Your task to perform on an android device: Empty the shopping cart on target.com. Add "bose quietcomfort 35" to the cart on target.com, then select checkout. Image 0: 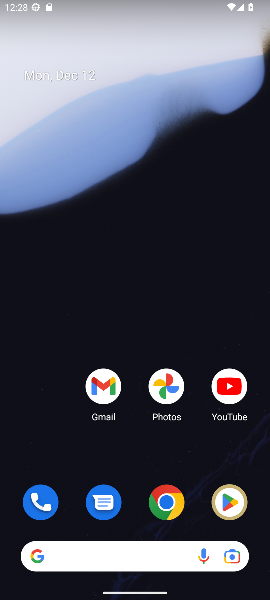
Step 0: click (168, 500)
Your task to perform on an android device: Empty the shopping cart on target.com. Add "bose quietcomfort 35" to the cart on target.com, then select checkout. Image 1: 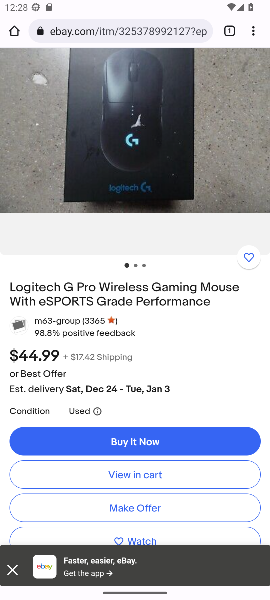
Step 1: click (140, 38)
Your task to perform on an android device: Empty the shopping cart on target.com. Add "bose quietcomfort 35" to the cart on target.com, then select checkout. Image 2: 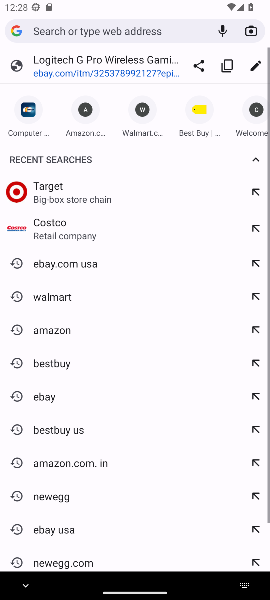
Step 2: click (91, 182)
Your task to perform on an android device: Empty the shopping cart on target.com. Add "bose quietcomfort 35" to the cart on target.com, then select checkout. Image 3: 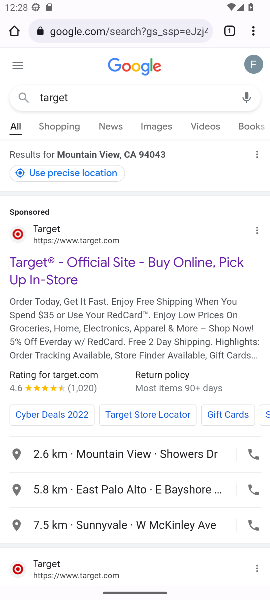
Step 3: click (104, 96)
Your task to perform on an android device: Empty the shopping cart on target.com. Add "bose quietcomfort 35" to the cart on target.com, then select checkout. Image 4: 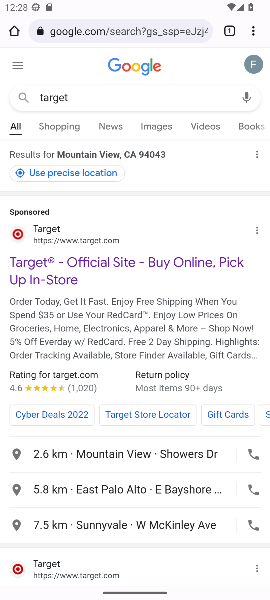
Step 4: click (104, 96)
Your task to perform on an android device: Empty the shopping cart on target.com. Add "bose quietcomfort 35" to the cart on target.com, then select checkout. Image 5: 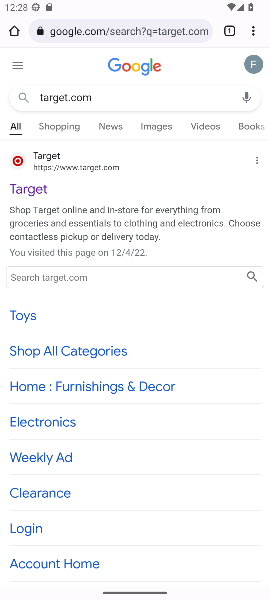
Step 5: press back button
Your task to perform on an android device: Empty the shopping cart on target.com. Add "bose quietcomfort 35" to the cart on target.com, then select checkout. Image 6: 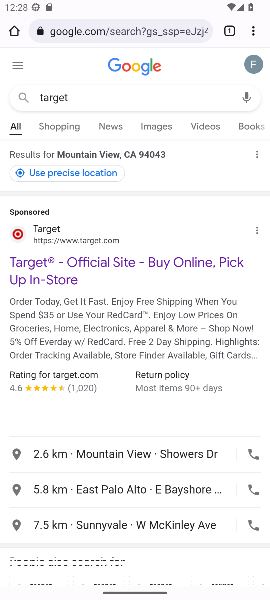
Step 6: click (66, 253)
Your task to perform on an android device: Empty the shopping cart on target.com. Add "bose quietcomfort 35" to the cart on target.com, then select checkout. Image 7: 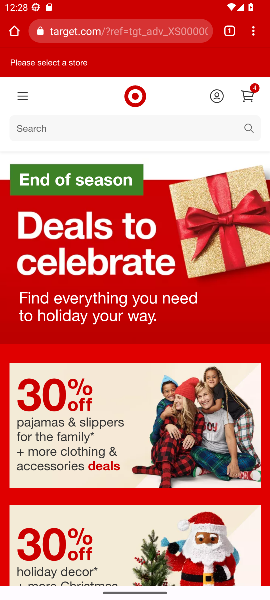
Step 7: click (131, 129)
Your task to perform on an android device: Empty the shopping cart on target.com. Add "bose quietcomfort 35" to the cart on target.com, then select checkout. Image 8: 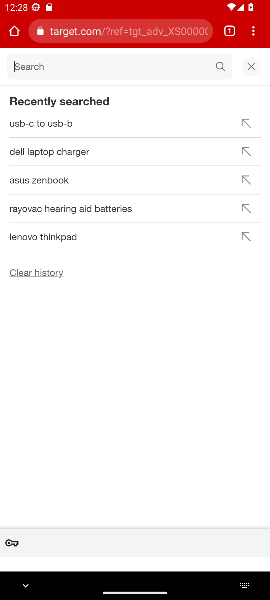
Step 8: type "bose quietcomfort 35"
Your task to perform on an android device: Empty the shopping cart on target.com. Add "bose quietcomfort 35" to the cart on target.com, then select checkout. Image 9: 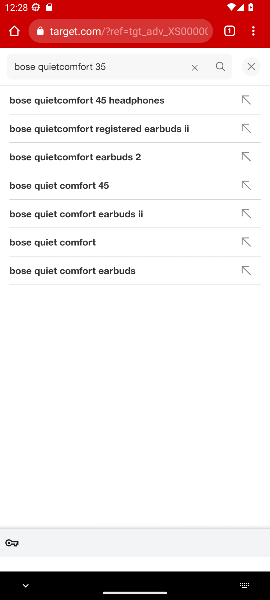
Step 9: click (221, 67)
Your task to perform on an android device: Empty the shopping cart on target.com. Add "bose quietcomfort 35" to the cart on target.com, then select checkout. Image 10: 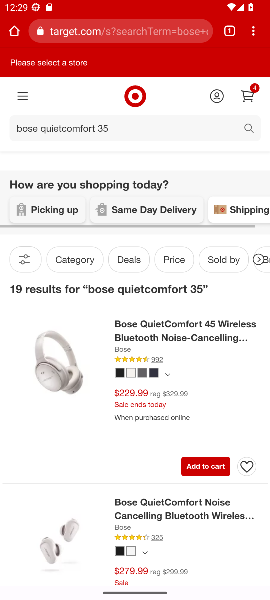
Step 10: click (195, 467)
Your task to perform on an android device: Empty the shopping cart on target.com. Add "bose quietcomfort 35" to the cart on target.com, then select checkout. Image 11: 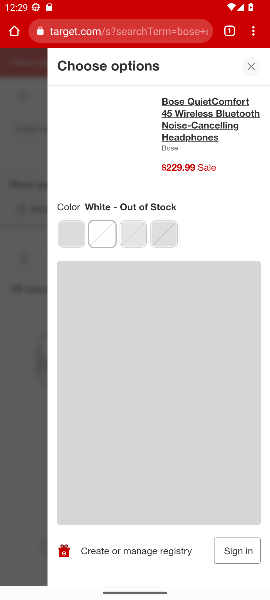
Step 11: click (243, 73)
Your task to perform on an android device: Empty the shopping cart on target.com. Add "bose quietcomfort 35" to the cart on target.com, then select checkout. Image 12: 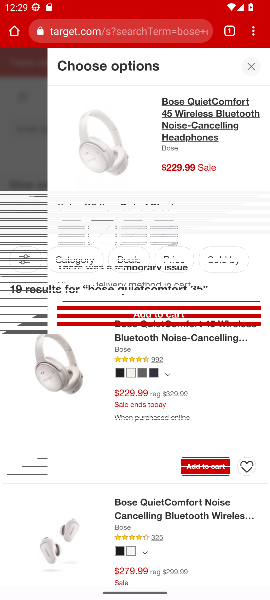
Step 12: click (190, 459)
Your task to perform on an android device: Empty the shopping cart on target.com. Add "bose quietcomfort 35" to the cart on target.com, then select checkout. Image 13: 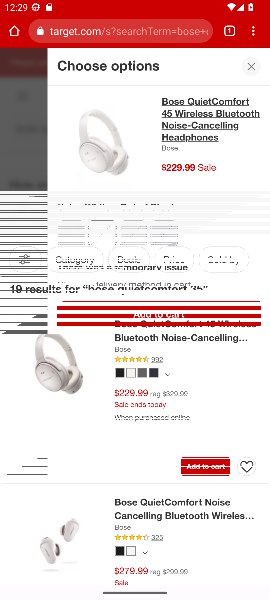
Step 13: task complete